Your task to perform on an android device: open a new tab in the chrome app Image 0: 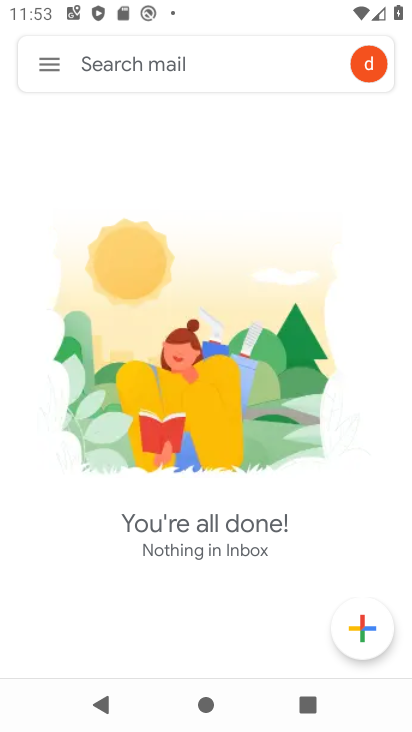
Step 0: press home button
Your task to perform on an android device: open a new tab in the chrome app Image 1: 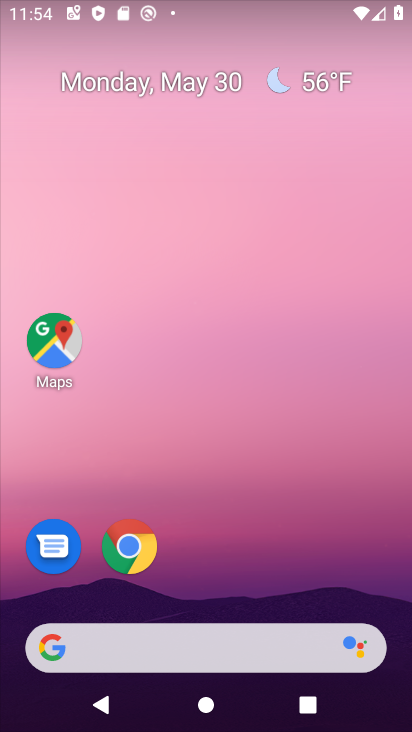
Step 1: click (131, 543)
Your task to perform on an android device: open a new tab in the chrome app Image 2: 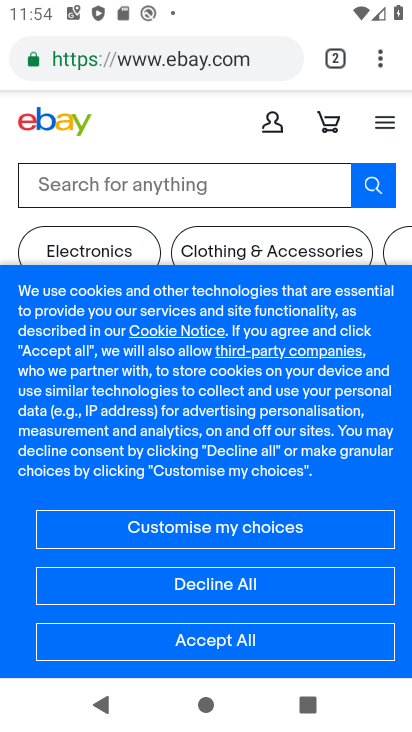
Step 2: click (379, 56)
Your task to perform on an android device: open a new tab in the chrome app Image 3: 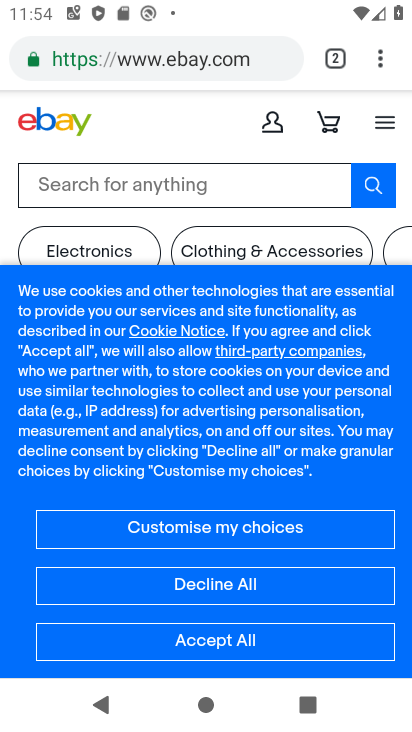
Step 3: click (379, 56)
Your task to perform on an android device: open a new tab in the chrome app Image 4: 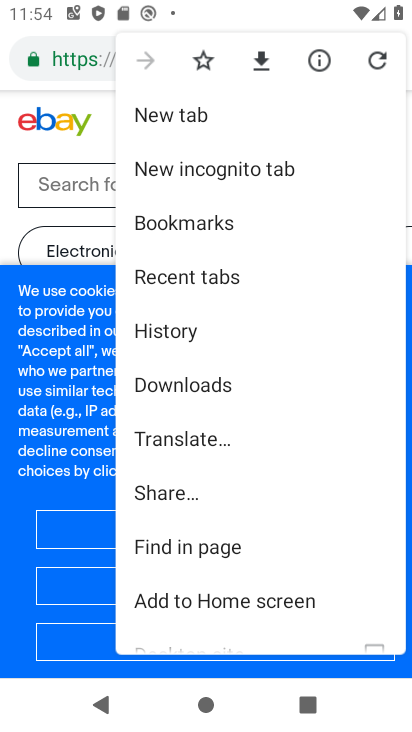
Step 4: click (181, 116)
Your task to perform on an android device: open a new tab in the chrome app Image 5: 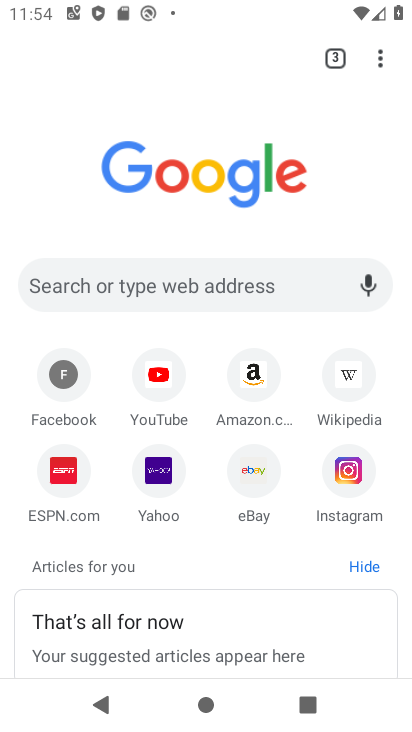
Step 5: task complete